Your task to perform on an android device: Add logitech g pro to the cart on target.com Image 0: 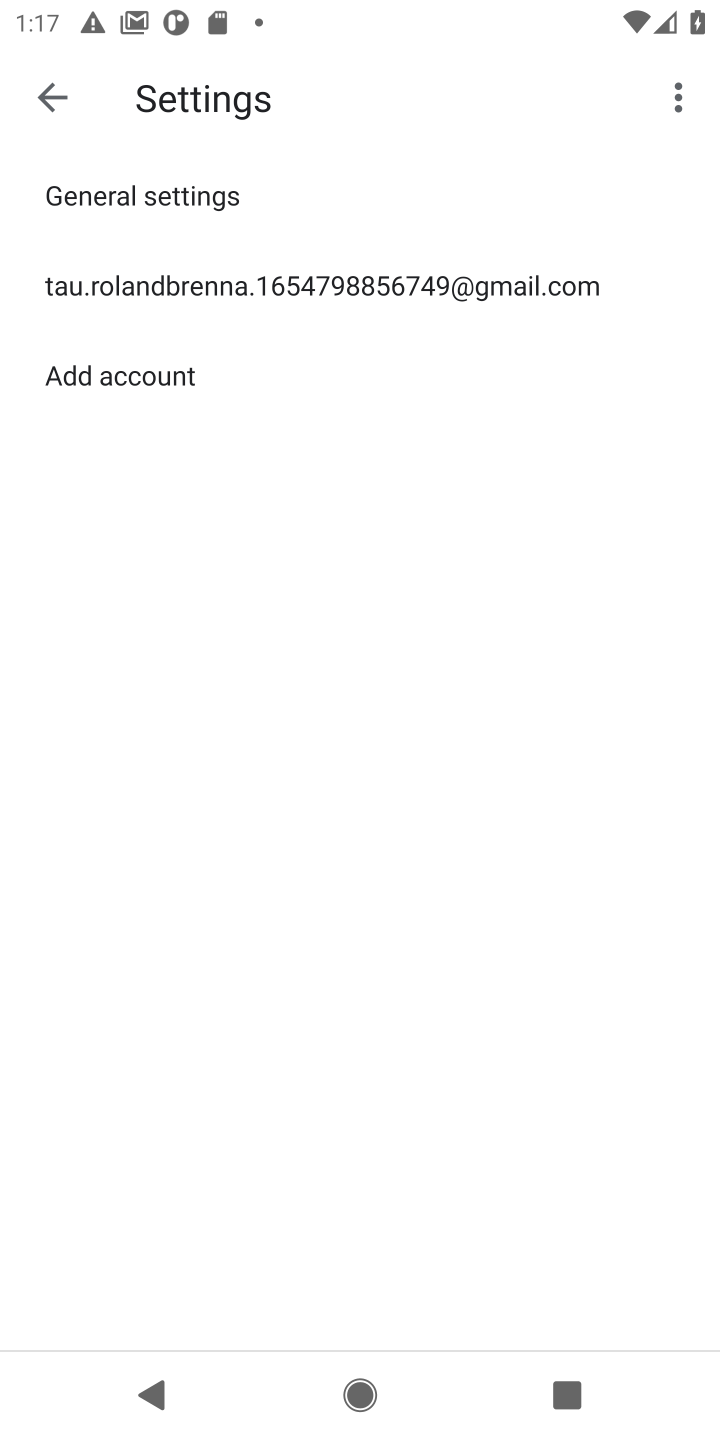
Step 0: task complete